Your task to perform on an android device: What's the weather today? Image 0: 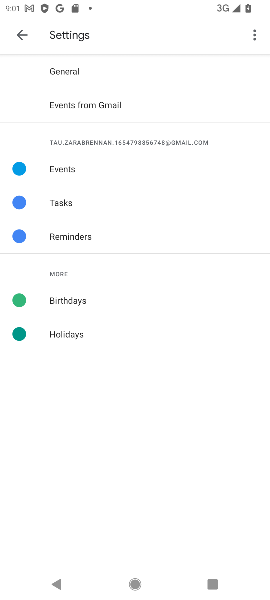
Step 0: press home button
Your task to perform on an android device: What's the weather today? Image 1: 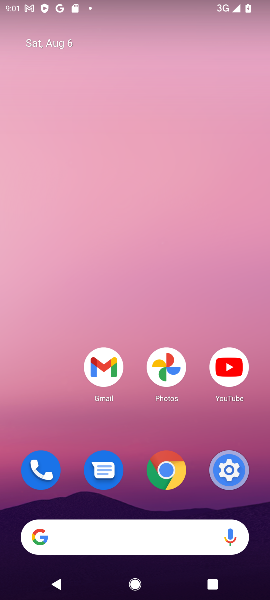
Step 1: drag from (189, 523) to (185, 115)
Your task to perform on an android device: What's the weather today? Image 2: 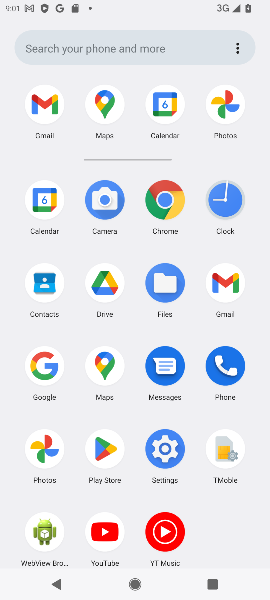
Step 2: click (38, 373)
Your task to perform on an android device: What's the weather today? Image 3: 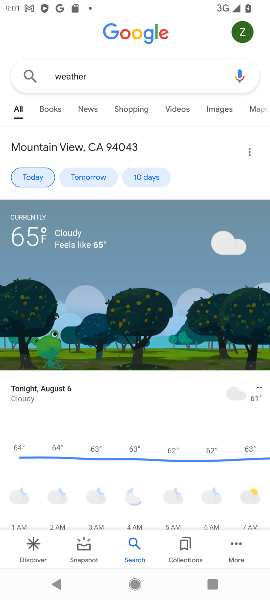
Step 3: task complete